Your task to perform on an android device: turn vacation reply on in the gmail app Image 0: 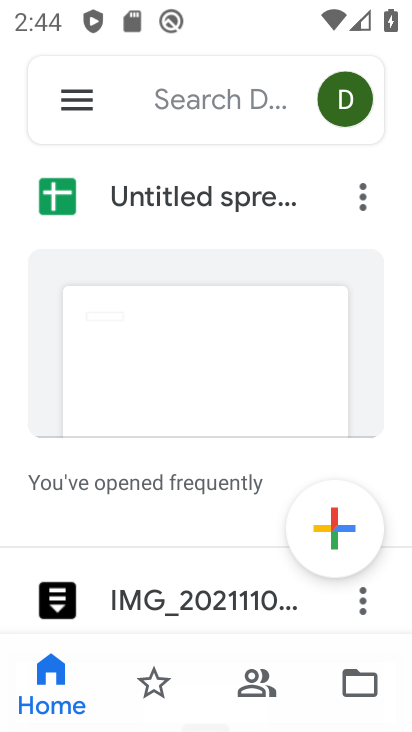
Step 0: press home button
Your task to perform on an android device: turn vacation reply on in the gmail app Image 1: 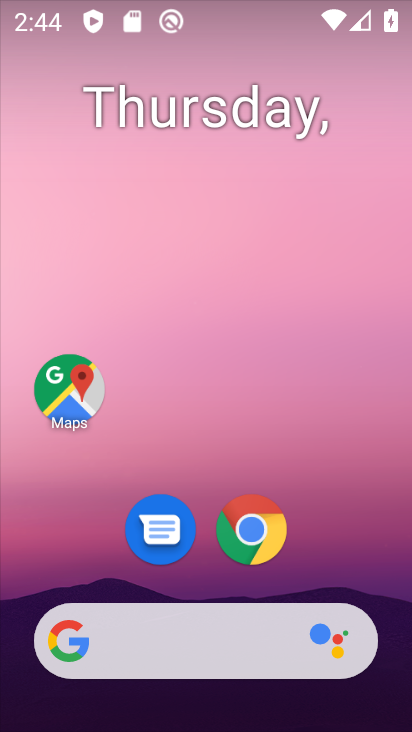
Step 1: drag from (188, 577) to (224, 214)
Your task to perform on an android device: turn vacation reply on in the gmail app Image 2: 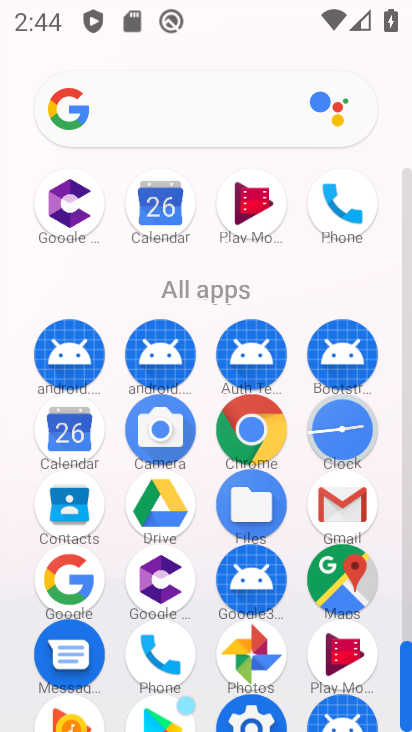
Step 2: click (329, 508)
Your task to perform on an android device: turn vacation reply on in the gmail app Image 3: 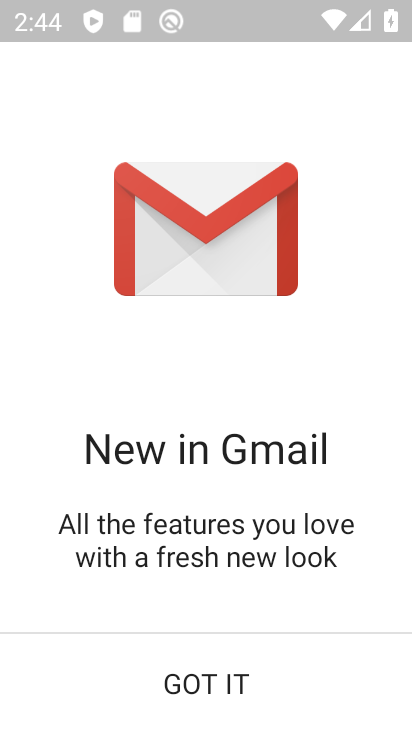
Step 3: click (228, 681)
Your task to perform on an android device: turn vacation reply on in the gmail app Image 4: 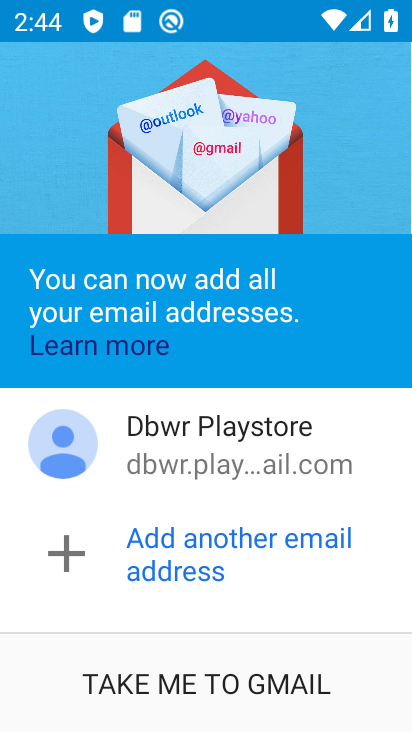
Step 4: click (226, 673)
Your task to perform on an android device: turn vacation reply on in the gmail app Image 5: 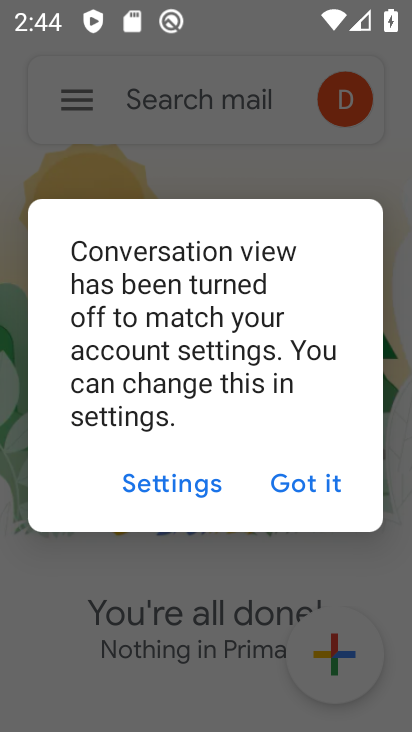
Step 5: click (291, 494)
Your task to perform on an android device: turn vacation reply on in the gmail app Image 6: 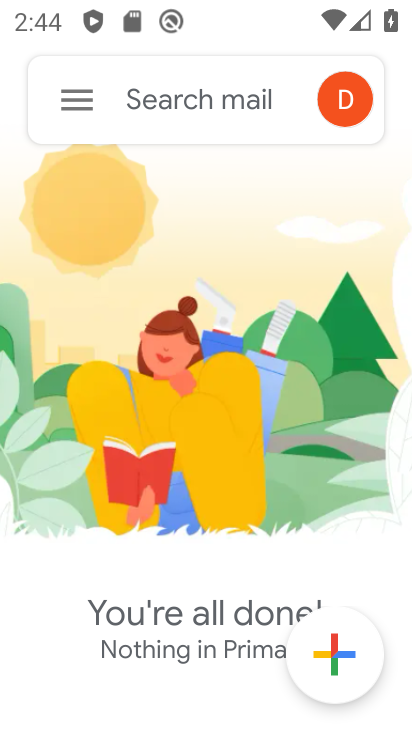
Step 6: click (78, 101)
Your task to perform on an android device: turn vacation reply on in the gmail app Image 7: 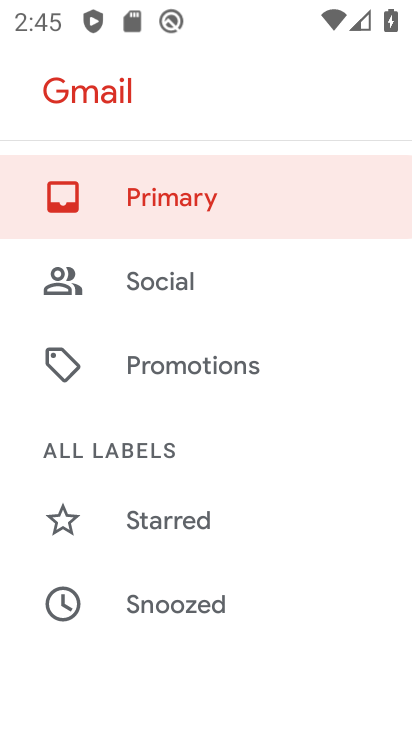
Step 7: drag from (162, 572) to (209, 259)
Your task to perform on an android device: turn vacation reply on in the gmail app Image 8: 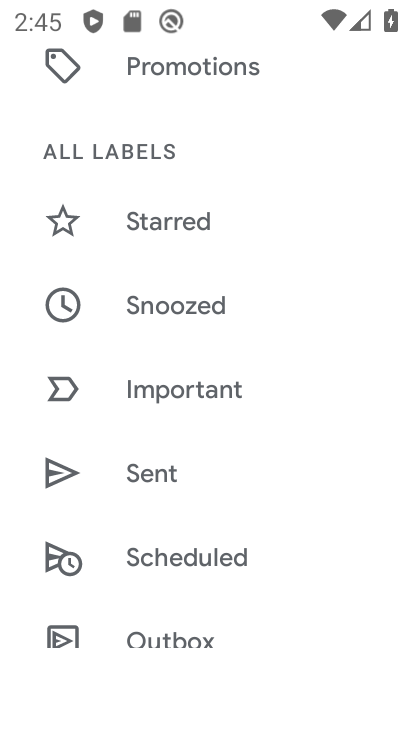
Step 8: drag from (123, 597) to (216, 277)
Your task to perform on an android device: turn vacation reply on in the gmail app Image 9: 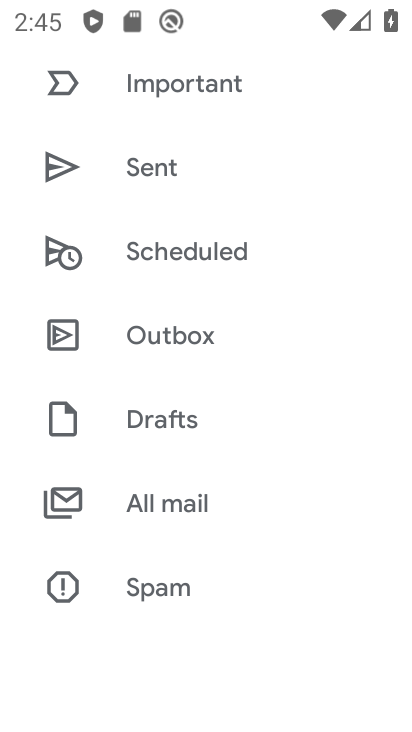
Step 9: drag from (160, 559) to (238, 220)
Your task to perform on an android device: turn vacation reply on in the gmail app Image 10: 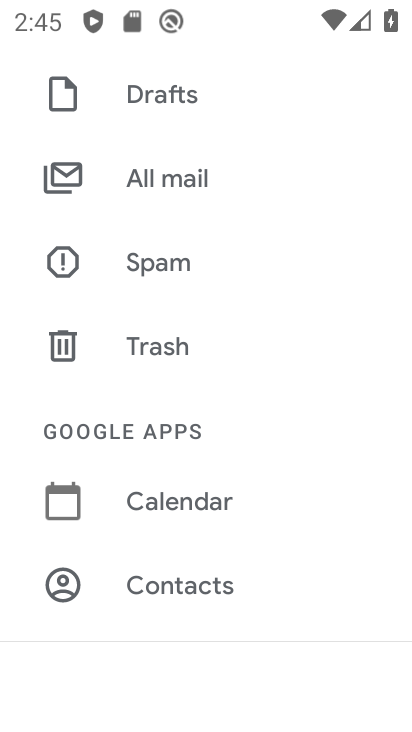
Step 10: drag from (175, 567) to (218, 306)
Your task to perform on an android device: turn vacation reply on in the gmail app Image 11: 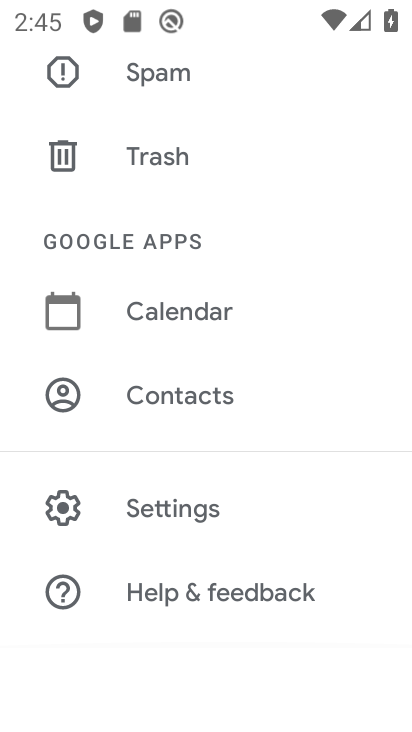
Step 11: click (186, 503)
Your task to perform on an android device: turn vacation reply on in the gmail app Image 12: 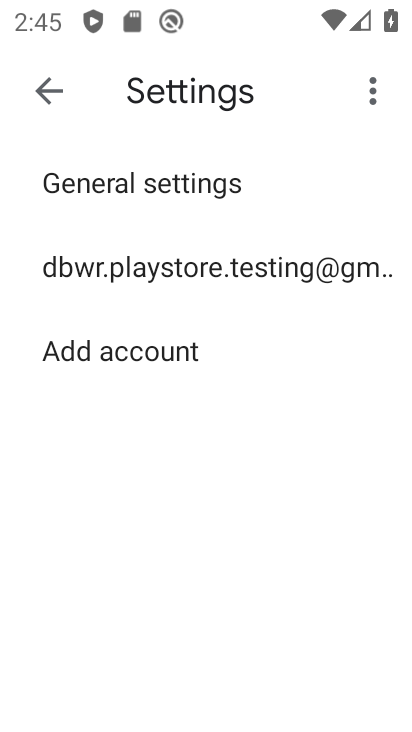
Step 12: click (177, 272)
Your task to perform on an android device: turn vacation reply on in the gmail app Image 13: 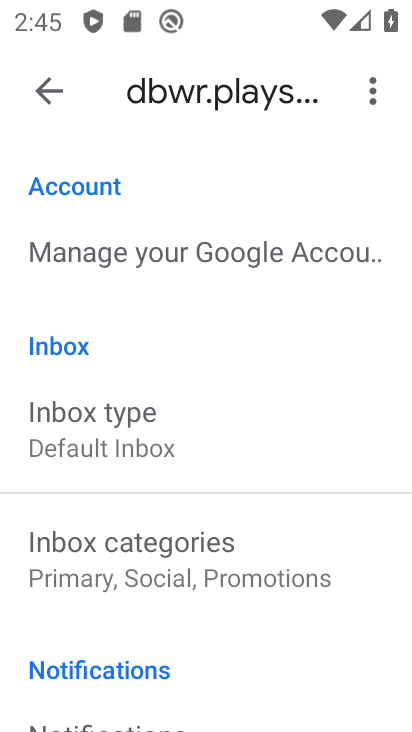
Step 13: drag from (113, 626) to (151, 224)
Your task to perform on an android device: turn vacation reply on in the gmail app Image 14: 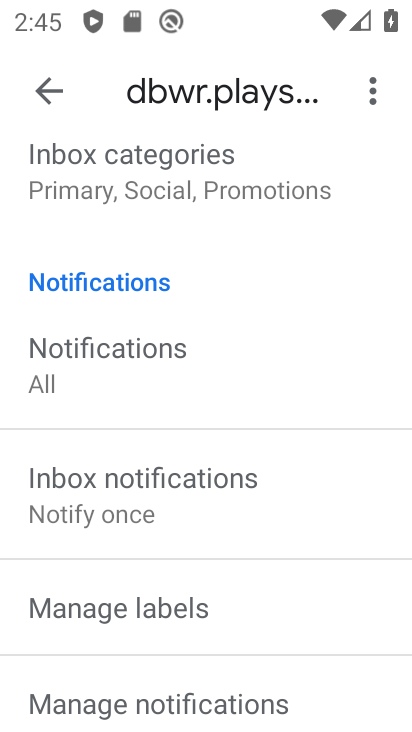
Step 14: drag from (114, 606) to (174, 280)
Your task to perform on an android device: turn vacation reply on in the gmail app Image 15: 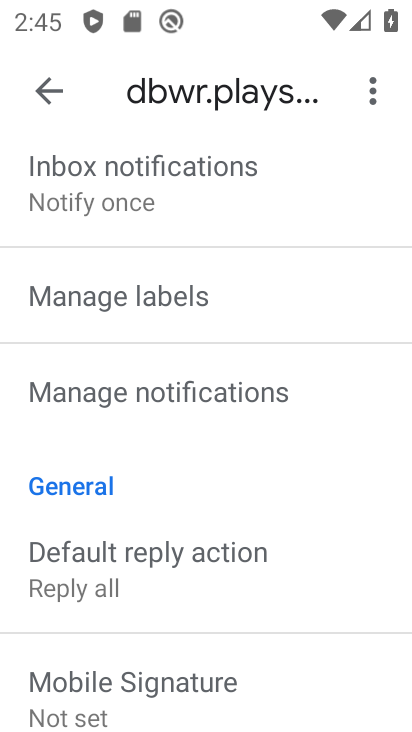
Step 15: drag from (177, 621) to (210, 333)
Your task to perform on an android device: turn vacation reply on in the gmail app Image 16: 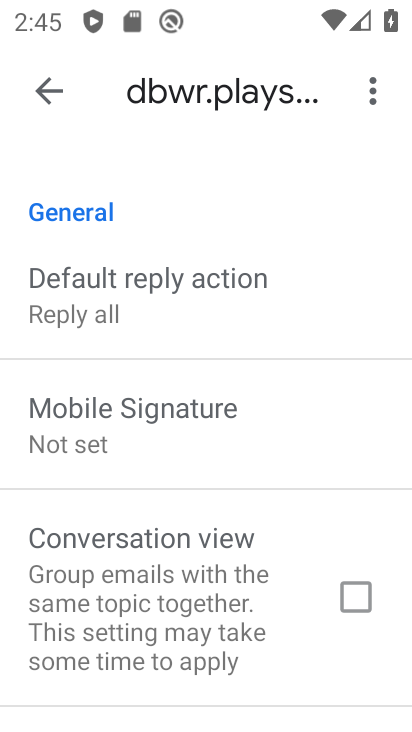
Step 16: drag from (152, 634) to (206, 354)
Your task to perform on an android device: turn vacation reply on in the gmail app Image 17: 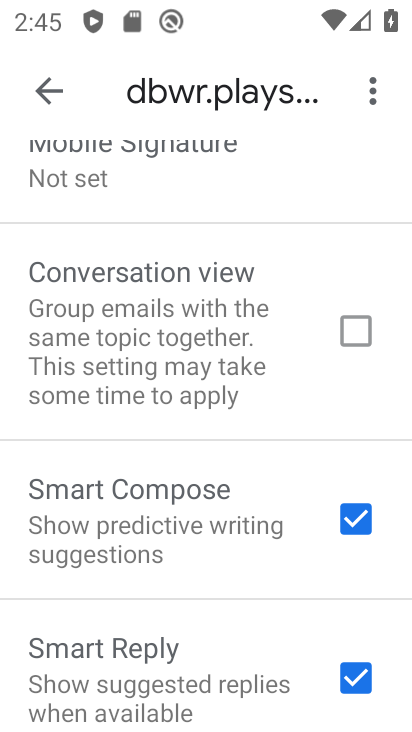
Step 17: drag from (154, 634) to (190, 306)
Your task to perform on an android device: turn vacation reply on in the gmail app Image 18: 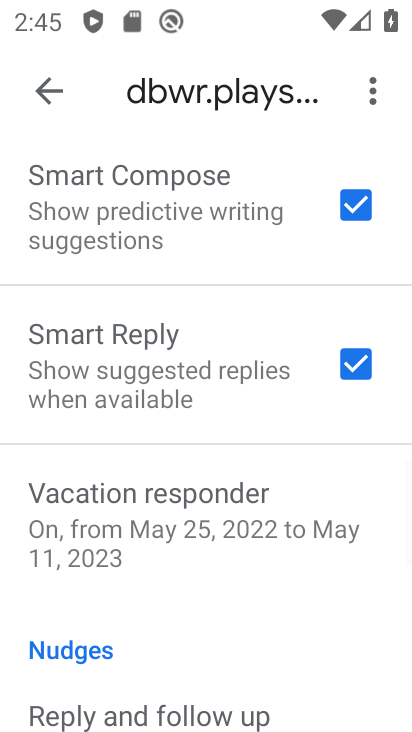
Step 18: click (165, 534)
Your task to perform on an android device: turn vacation reply on in the gmail app Image 19: 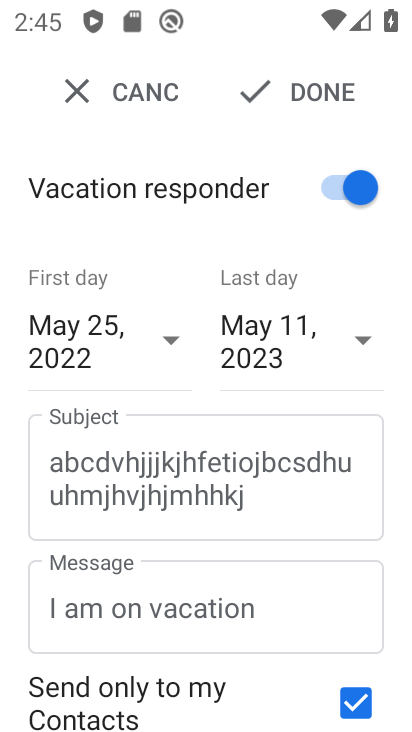
Step 19: task complete